Your task to perform on an android device: add a contact in the contacts app Image 0: 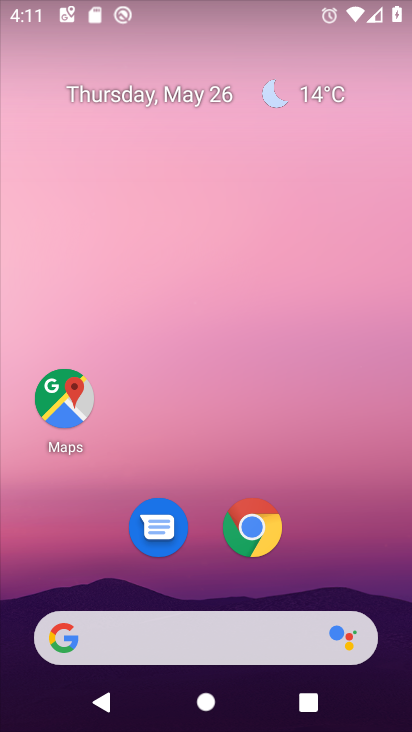
Step 0: drag from (387, 567) to (243, 168)
Your task to perform on an android device: add a contact in the contacts app Image 1: 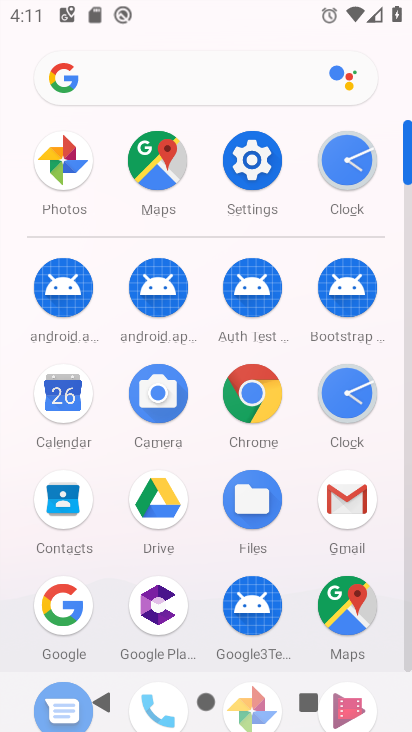
Step 1: click (75, 484)
Your task to perform on an android device: add a contact in the contacts app Image 2: 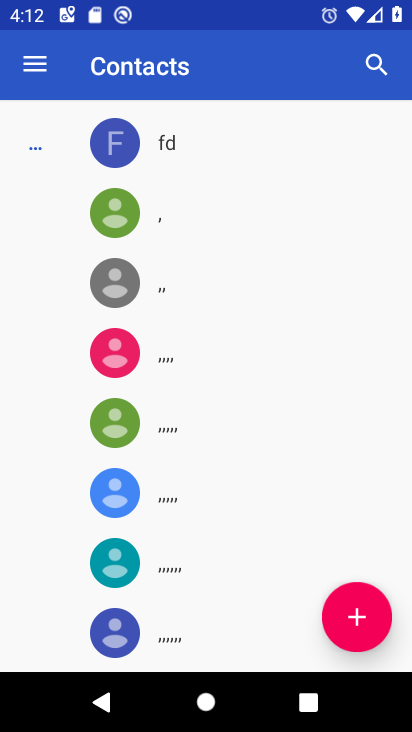
Step 2: click (356, 611)
Your task to perform on an android device: add a contact in the contacts app Image 3: 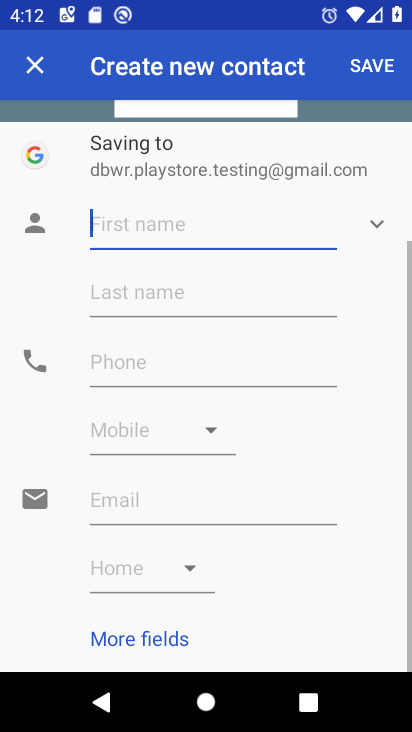
Step 3: drag from (349, 625) to (350, 505)
Your task to perform on an android device: add a contact in the contacts app Image 4: 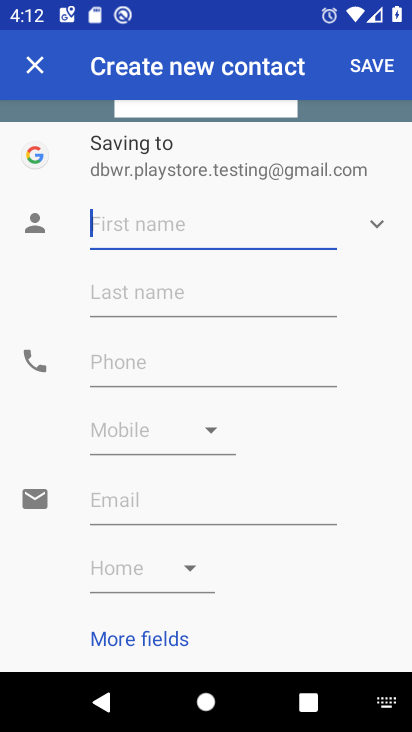
Step 4: click (200, 235)
Your task to perform on an android device: add a contact in the contacts app Image 5: 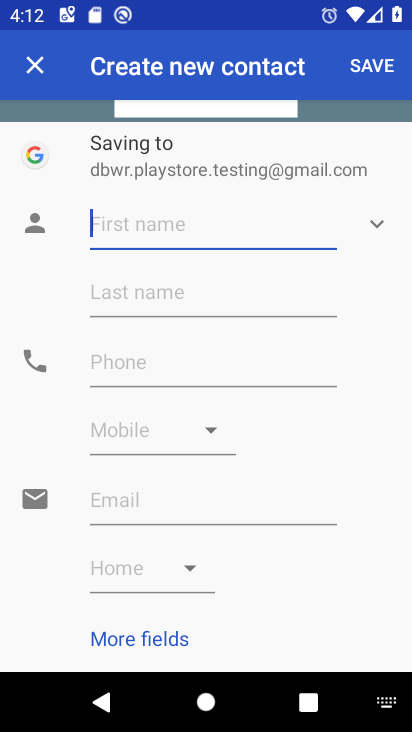
Step 5: type "nkjcndkj"
Your task to perform on an android device: add a contact in the contacts app Image 6: 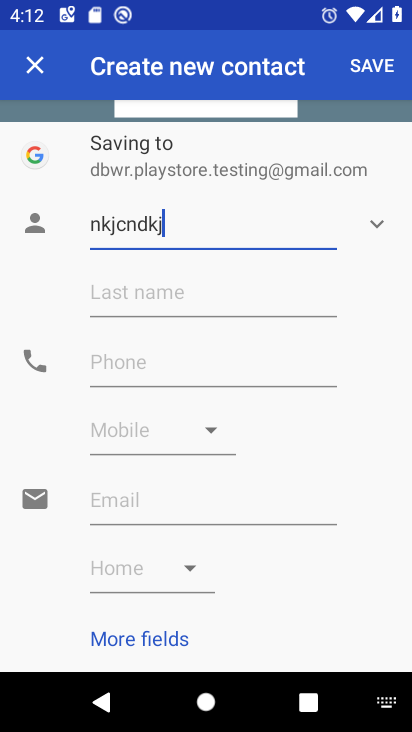
Step 6: click (188, 359)
Your task to perform on an android device: add a contact in the contacts app Image 7: 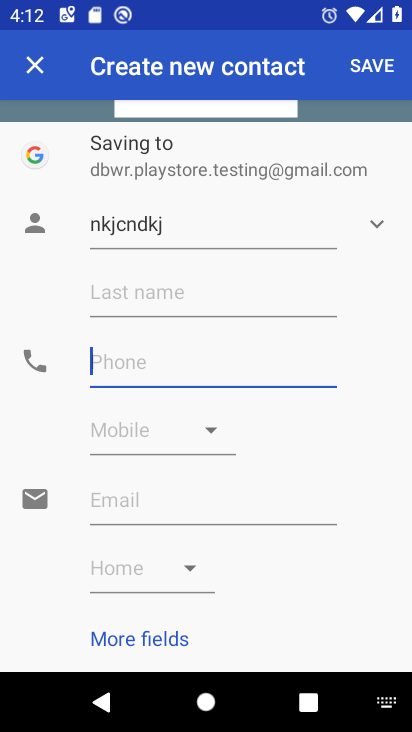
Step 7: type "893729837928"
Your task to perform on an android device: add a contact in the contacts app Image 8: 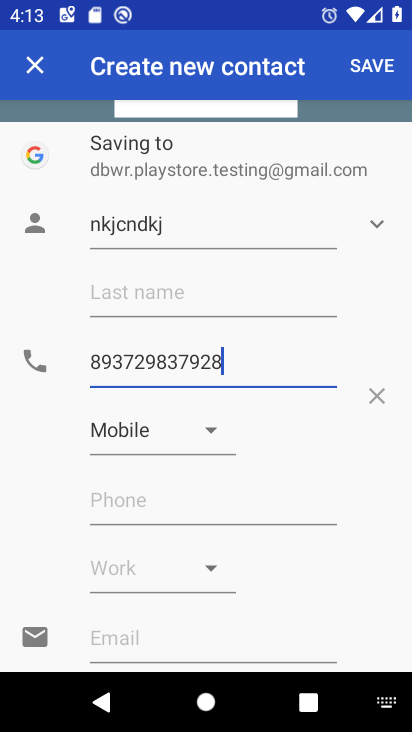
Step 8: click (378, 60)
Your task to perform on an android device: add a contact in the contacts app Image 9: 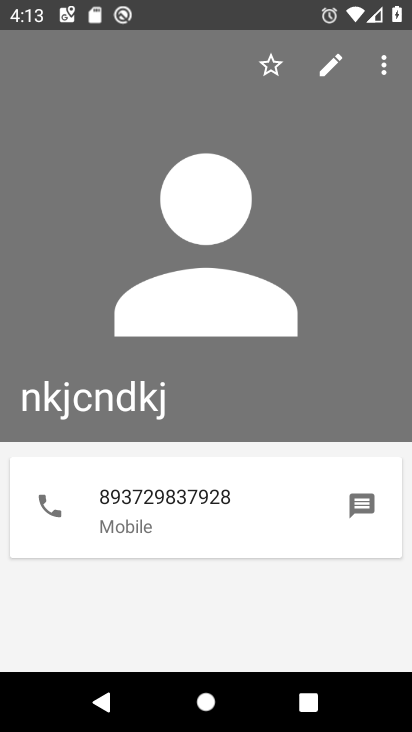
Step 9: task complete